Your task to perform on an android device: Open calendar and show me the fourth week of next month Image 0: 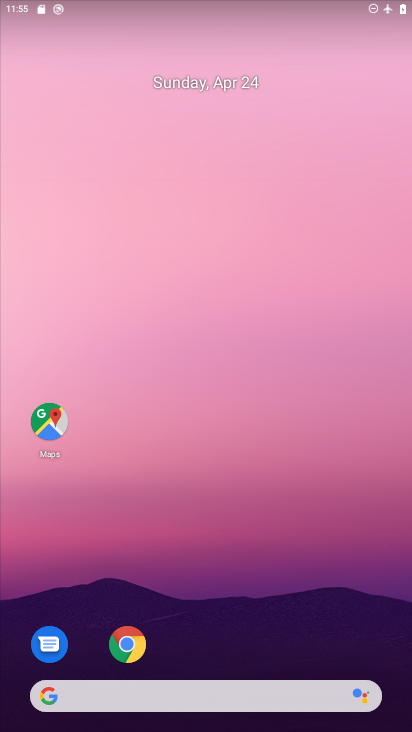
Step 0: drag from (197, 610) to (300, 42)
Your task to perform on an android device: Open calendar and show me the fourth week of next month Image 1: 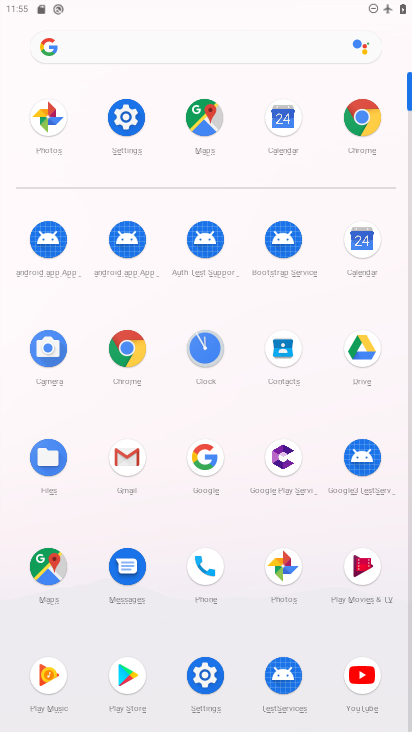
Step 1: click (365, 268)
Your task to perform on an android device: Open calendar and show me the fourth week of next month Image 2: 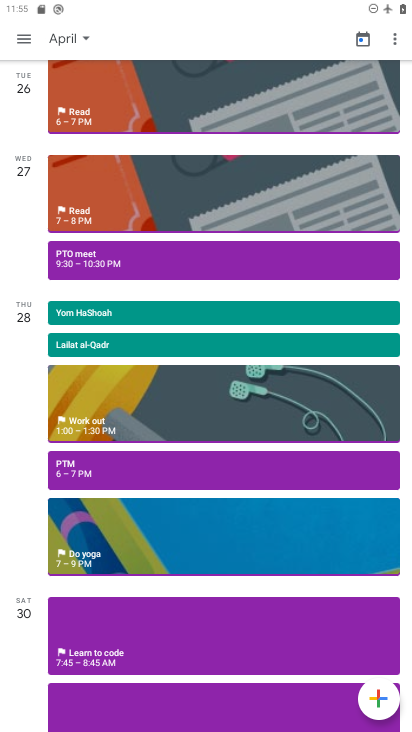
Step 2: click (17, 40)
Your task to perform on an android device: Open calendar and show me the fourth week of next month Image 3: 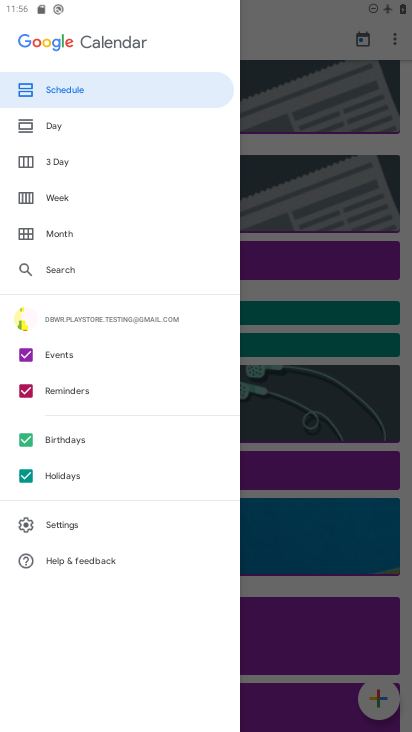
Step 3: click (61, 196)
Your task to perform on an android device: Open calendar and show me the fourth week of next month Image 4: 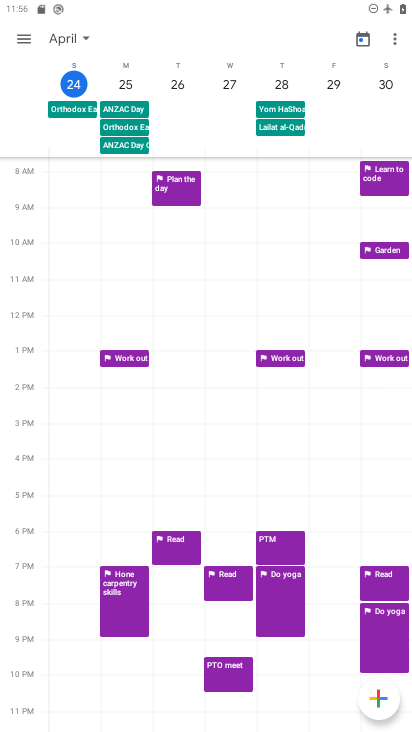
Step 4: task complete